Your task to perform on an android device: Search for pizza restaurants on Maps Image 0: 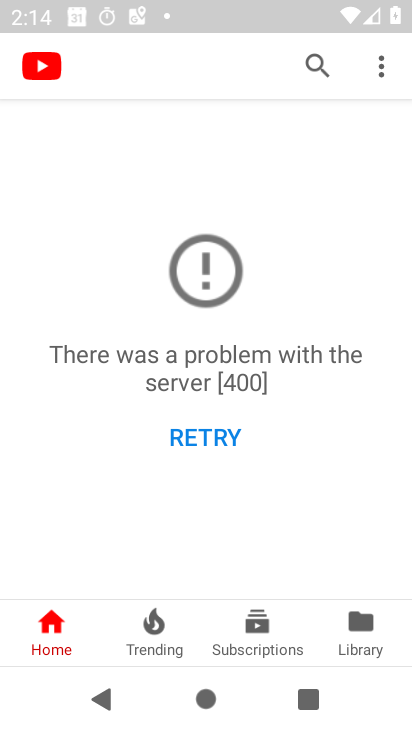
Step 0: press home button
Your task to perform on an android device: Search for pizza restaurants on Maps Image 1: 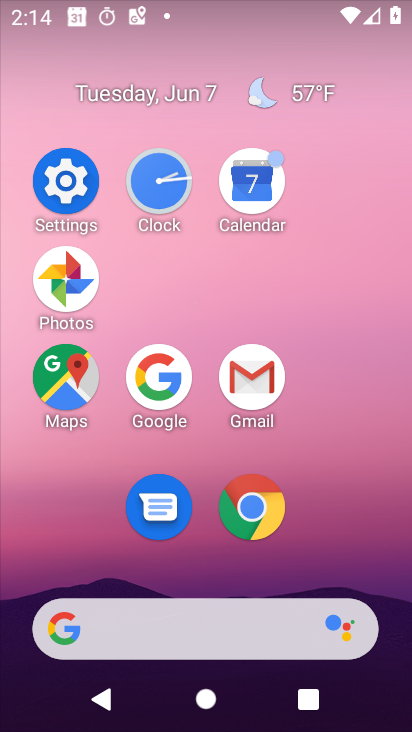
Step 1: click (78, 376)
Your task to perform on an android device: Search for pizza restaurants on Maps Image 2: 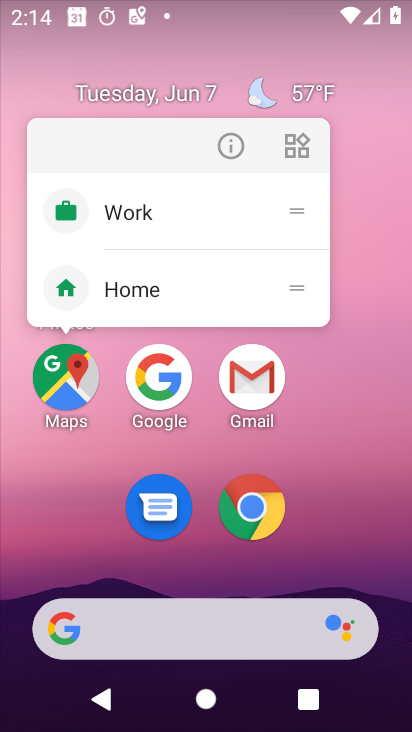
Step 2: click (78, 376)
Your task to perform on an android device: Search for pizza restaurants on Maps Image 3: 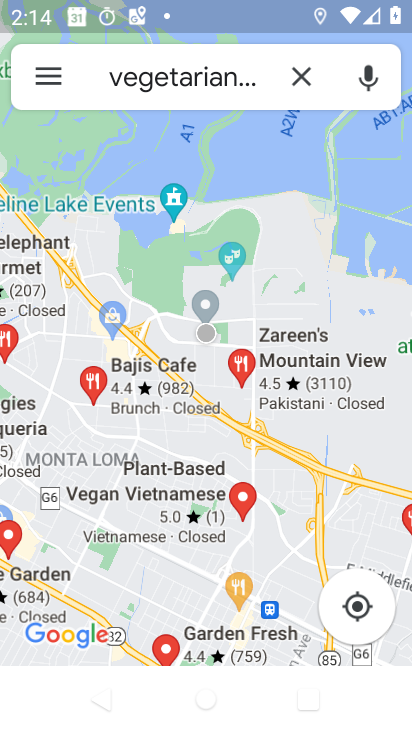
Step 3: click (251, 77)
Your task to perform on an android device: Search for pizza restaurants on Maps Image 4: 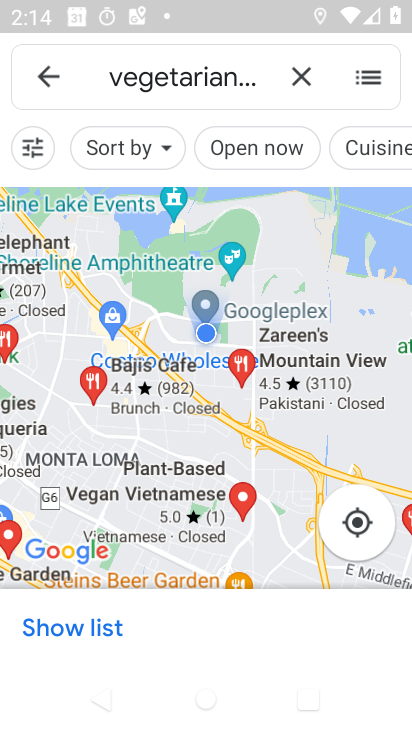
Step 4: click (301, 79)
Your task to perform on an android device: Search for pizza restaurants on Maps Image 5: 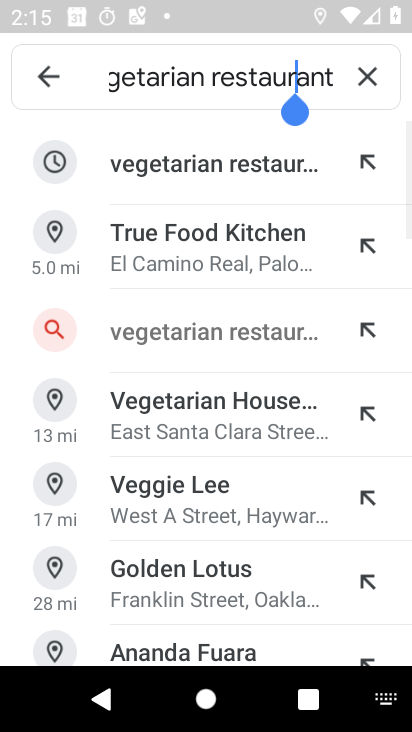
Step 5: click (364, 80)
Your task to perform on an android device: Search for pizza restaurants on Maps Image 6: 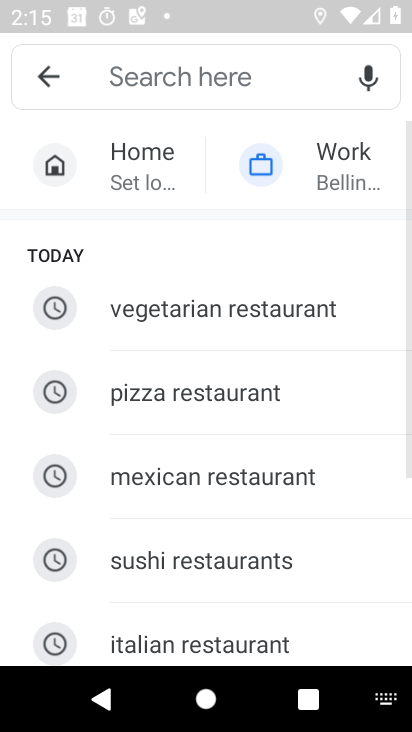
Step 6: click (240, 394)
Your task to perform on an android device: Search for pizza restaurants on Maps Image 7: 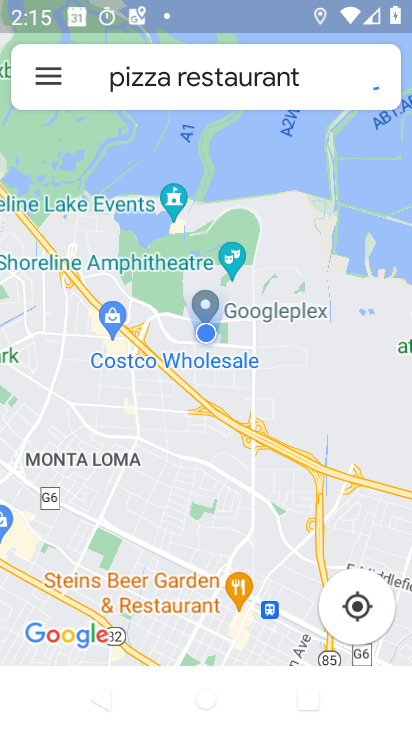
Step 7: task complete